Your task to perform on an android device: open app "Google Home" Image 0: 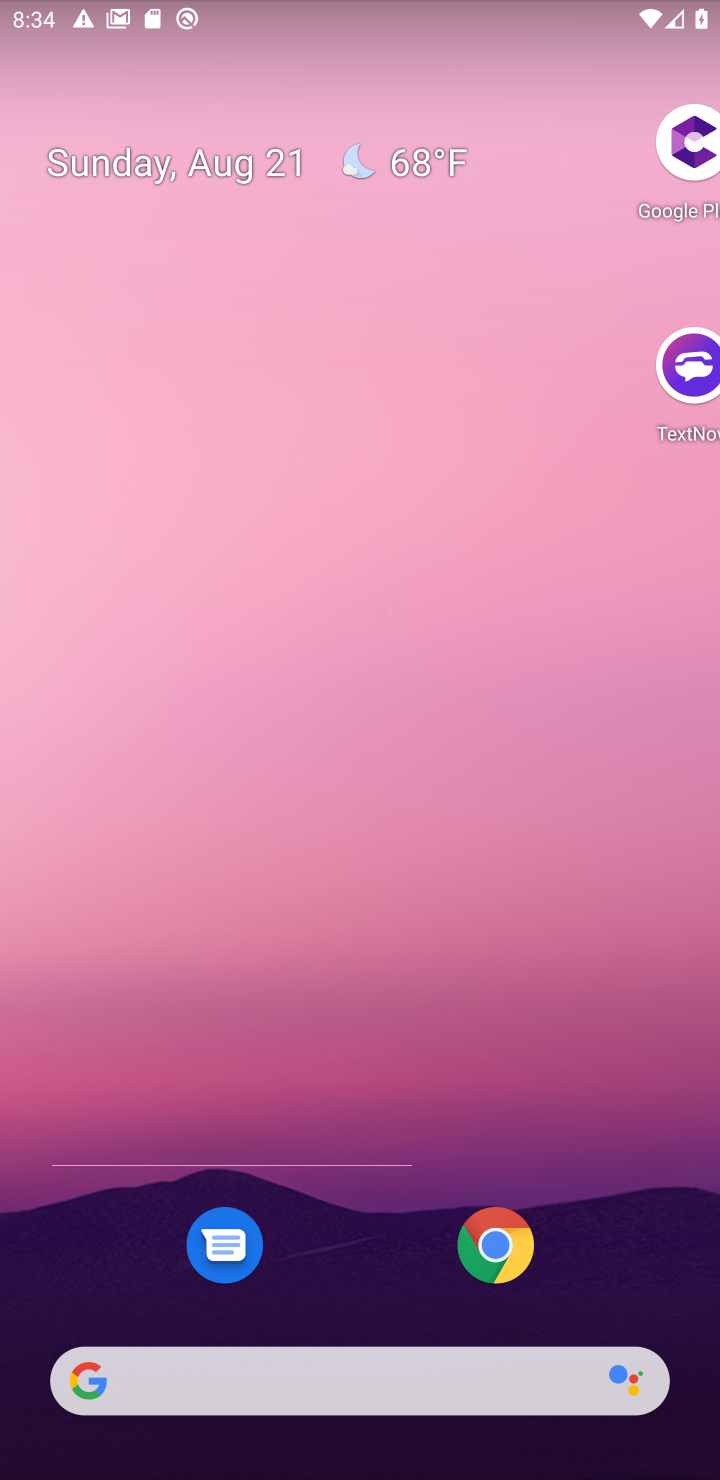
Step 0: drag from (399, 1324) to (280, 68)
Your task to perform on an android device: open app "Google Home" Image 1: 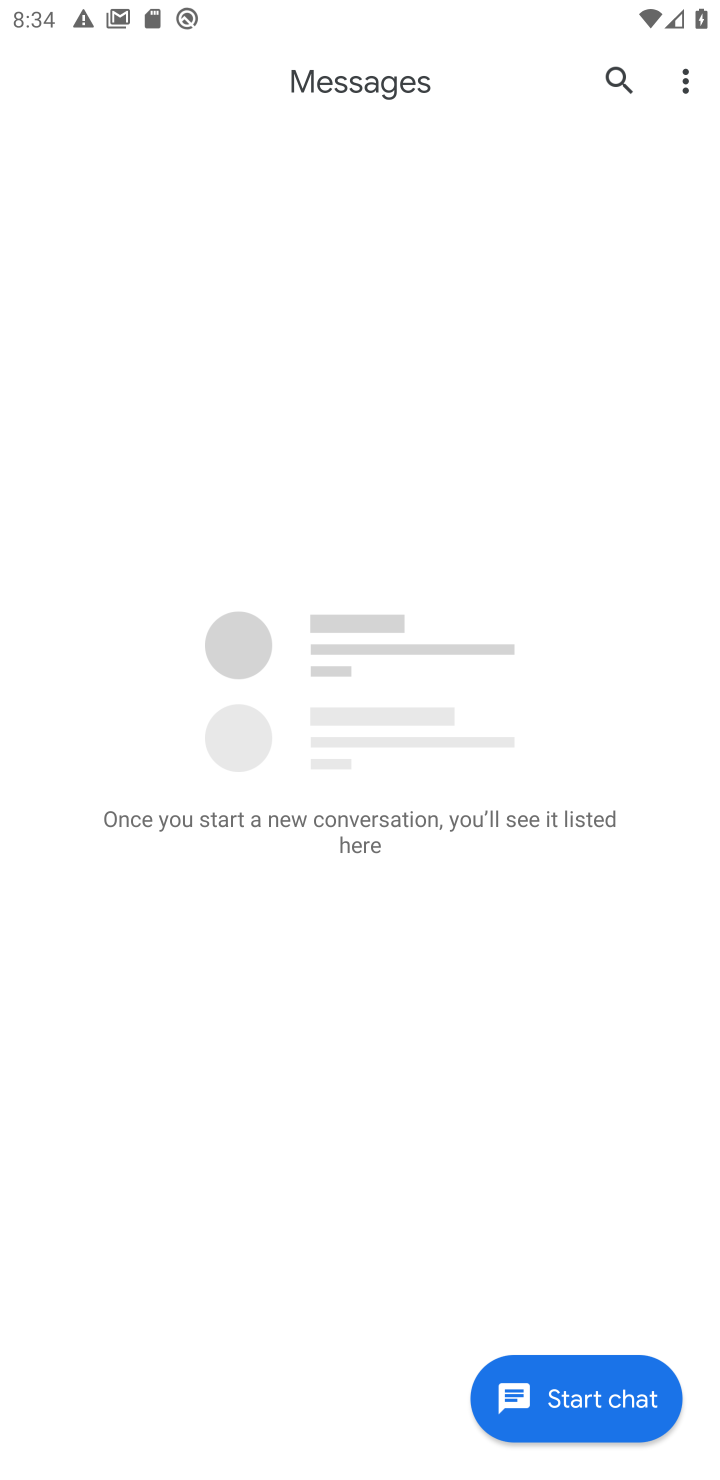
Step 1: press home button
Your task to perform on an android device: open app "Google Home" Image 2: 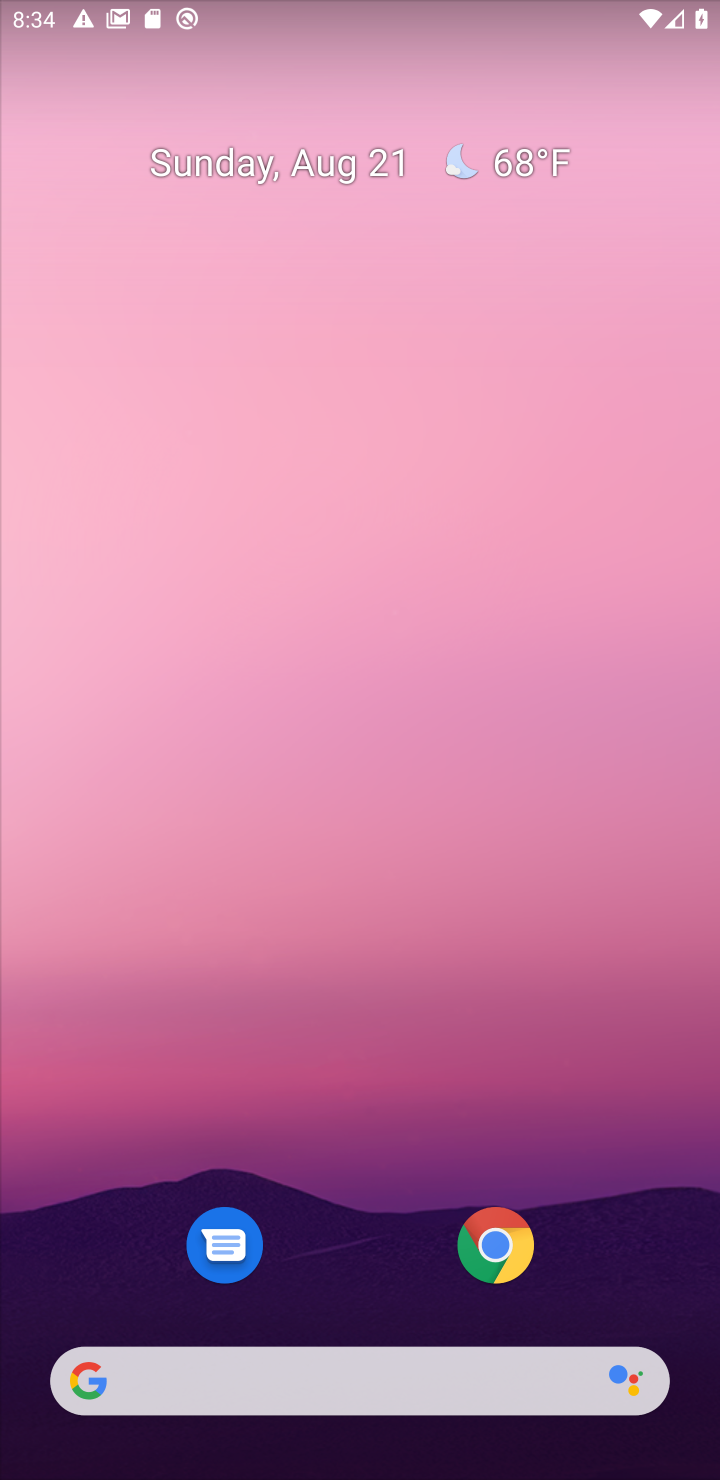
Step 2: drag from (345, 1298) to (238, 73)
Your task to perform on an android device: open app "Google Home" Image 3: 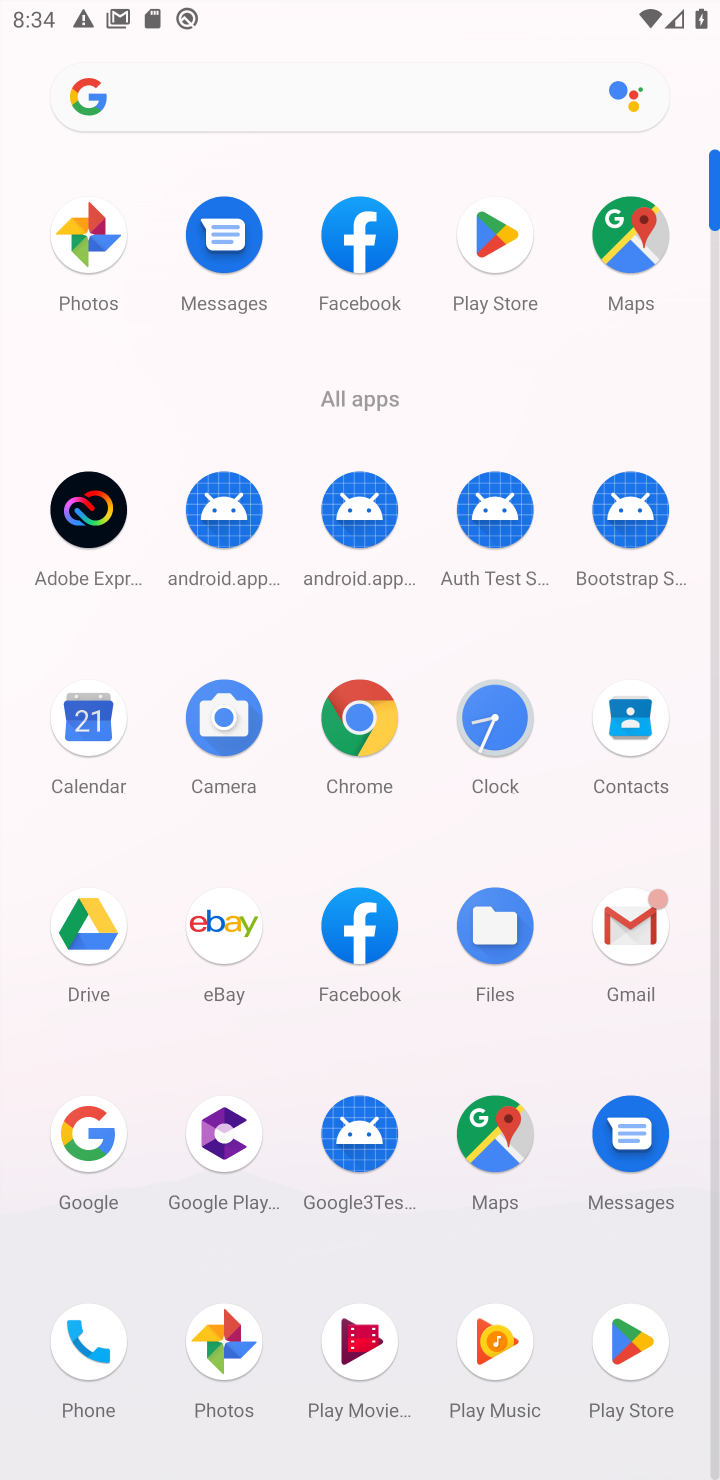
Step 3: click (600, 1374)
Your task to perform on an android device: open app "Google Home" Image 4: 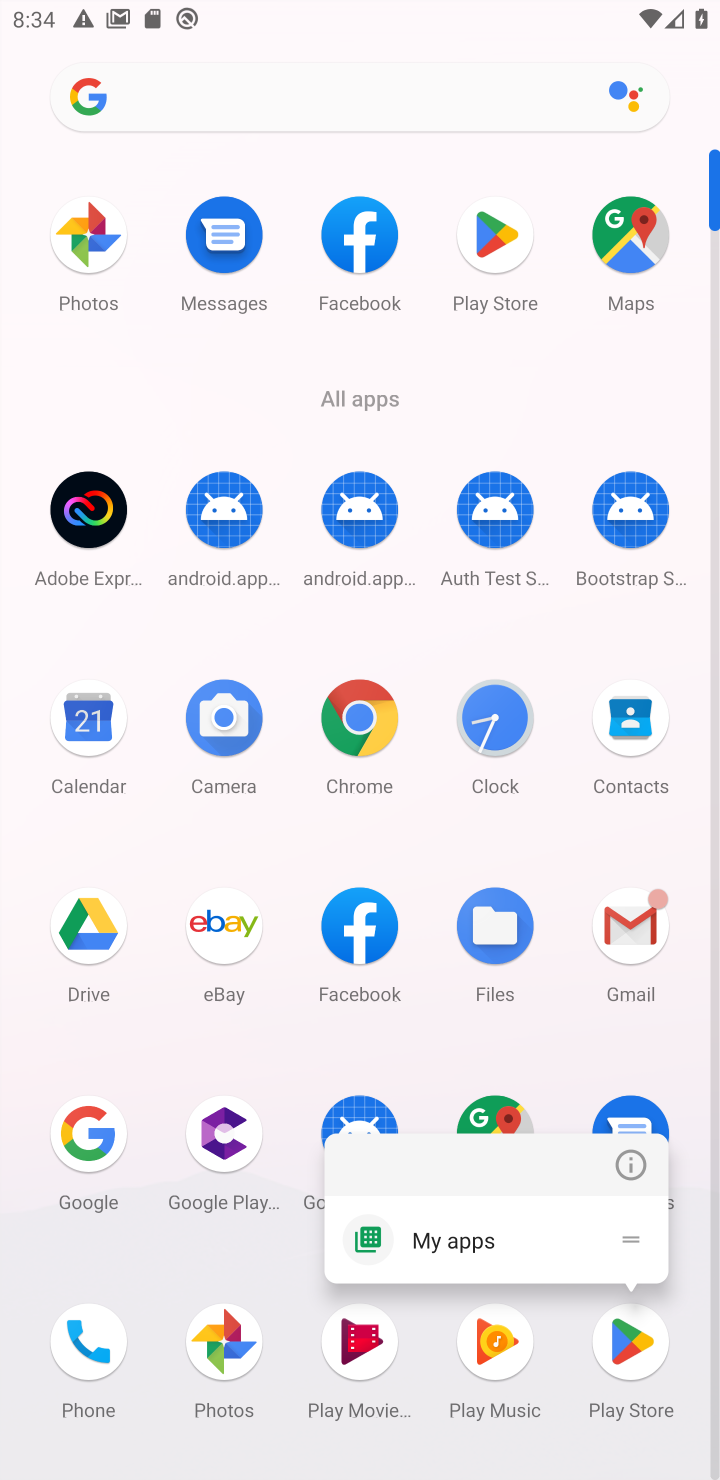
Step 4: click (609, 1369)
Your task to perform on an android device: open app "Google Home" Image 5: 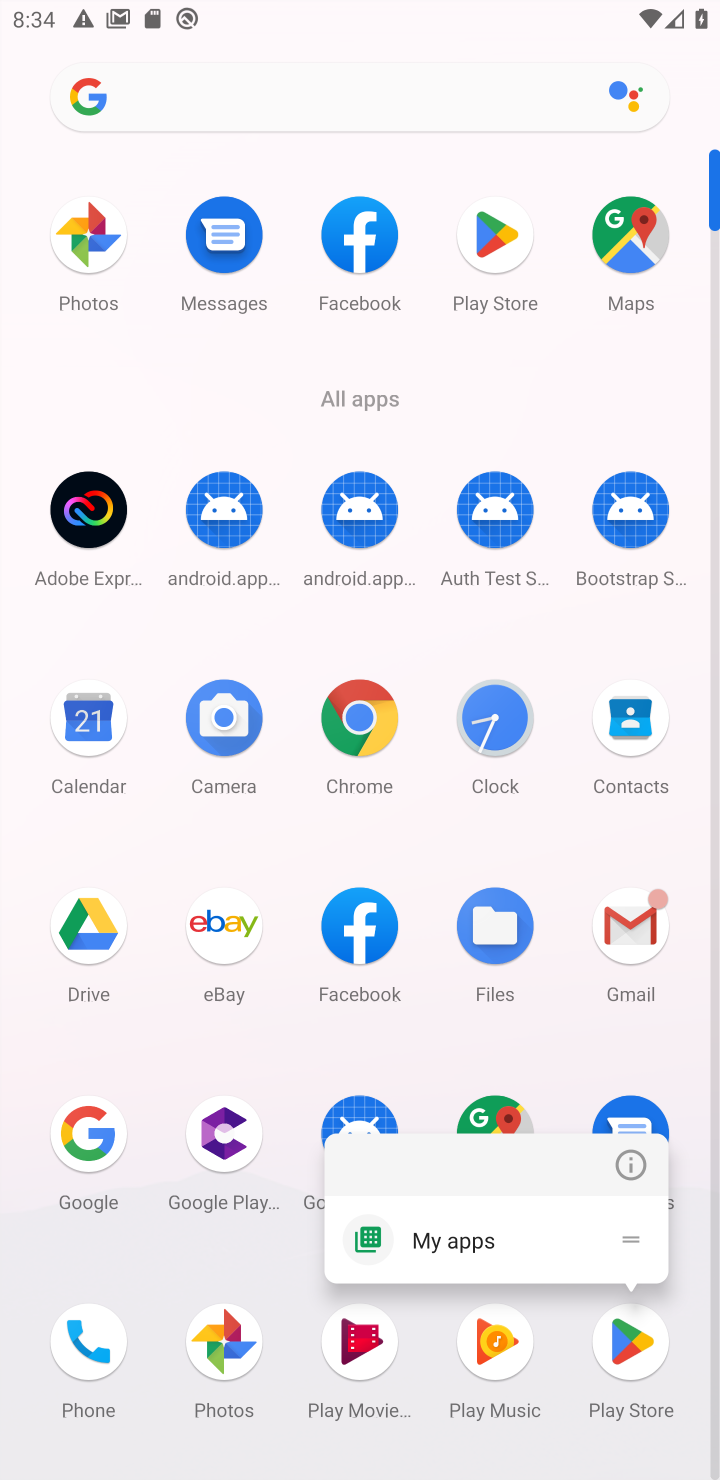
Step 5: click (645, 1356)
Your task to perform on an android device: open app "Google Home" Image 6: 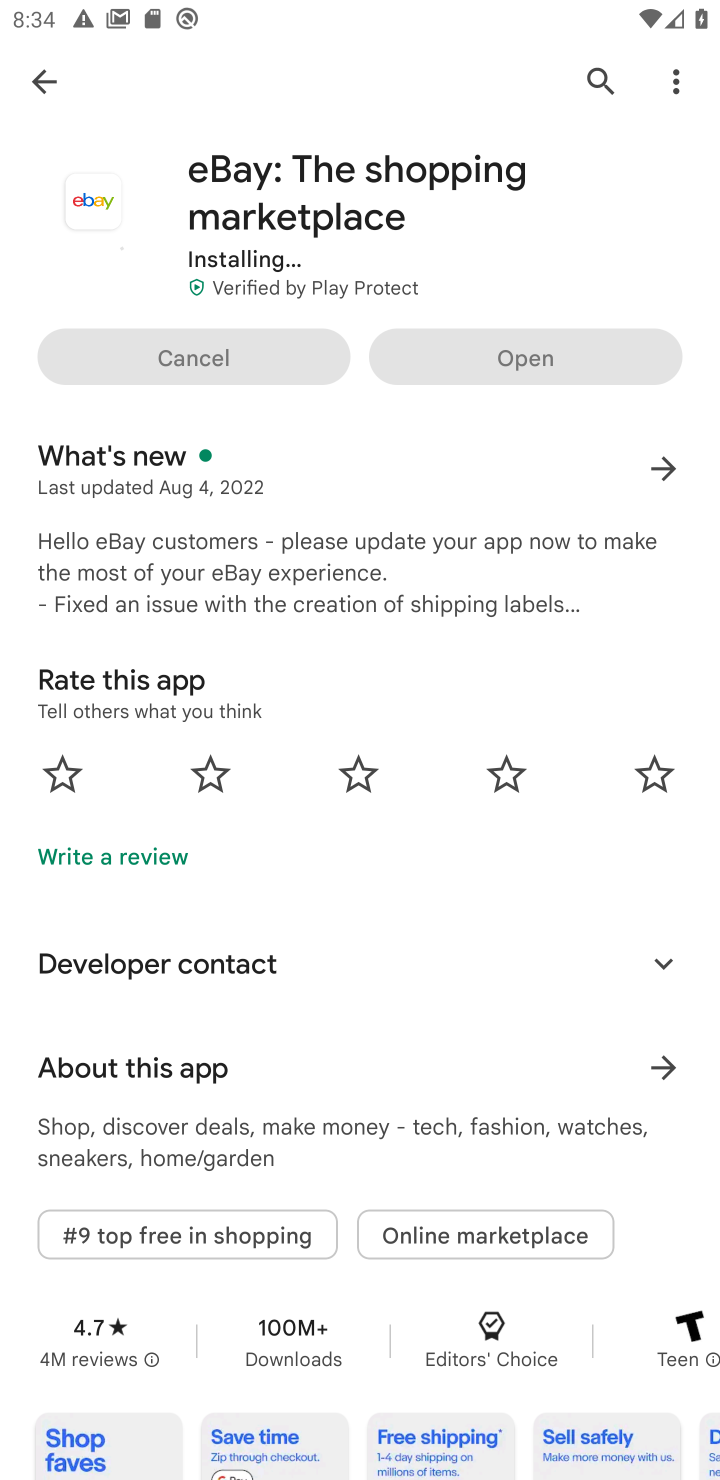
Step 6: click (32, 81)
Your task to perform on an android device: open app "Google Home" Image 7: 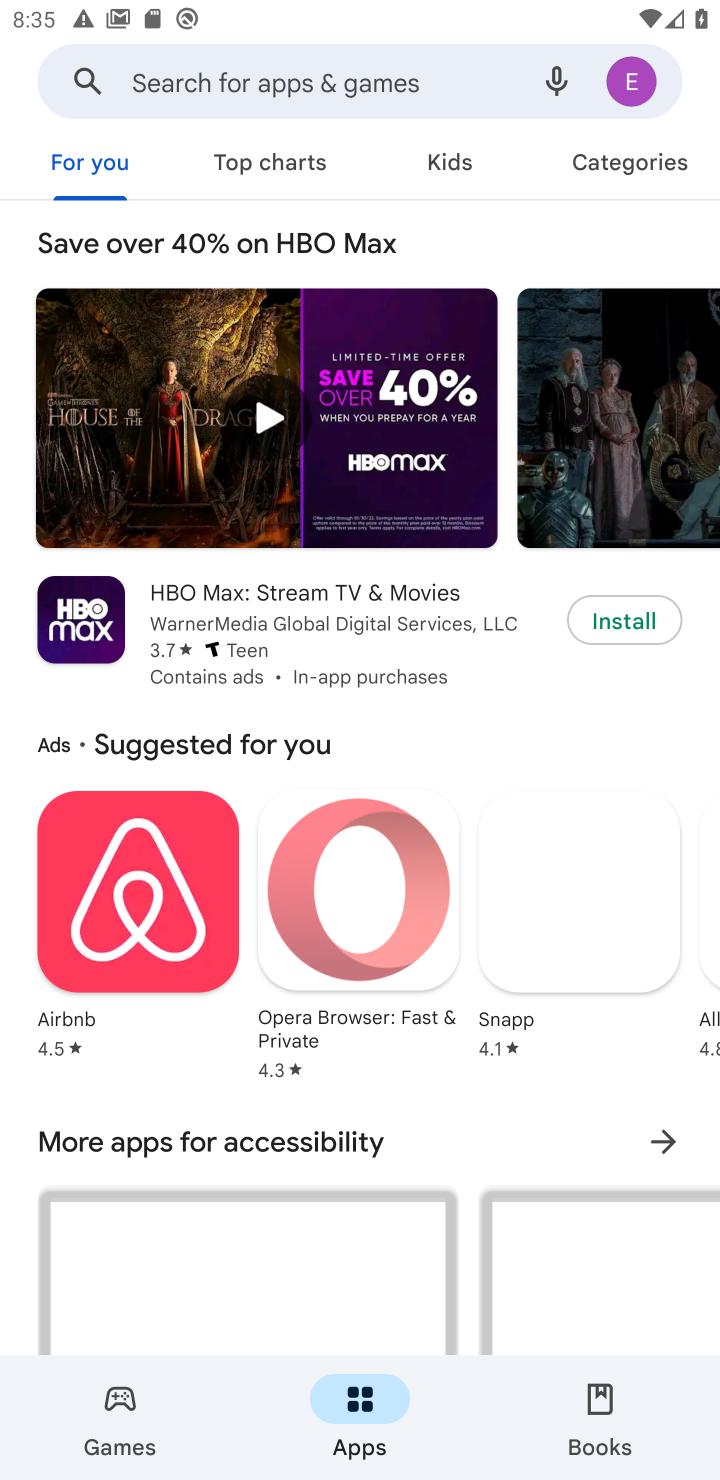
Step 7: click (232, 92)
Your task to perform on an android device: open app "Google Home" Image 8: 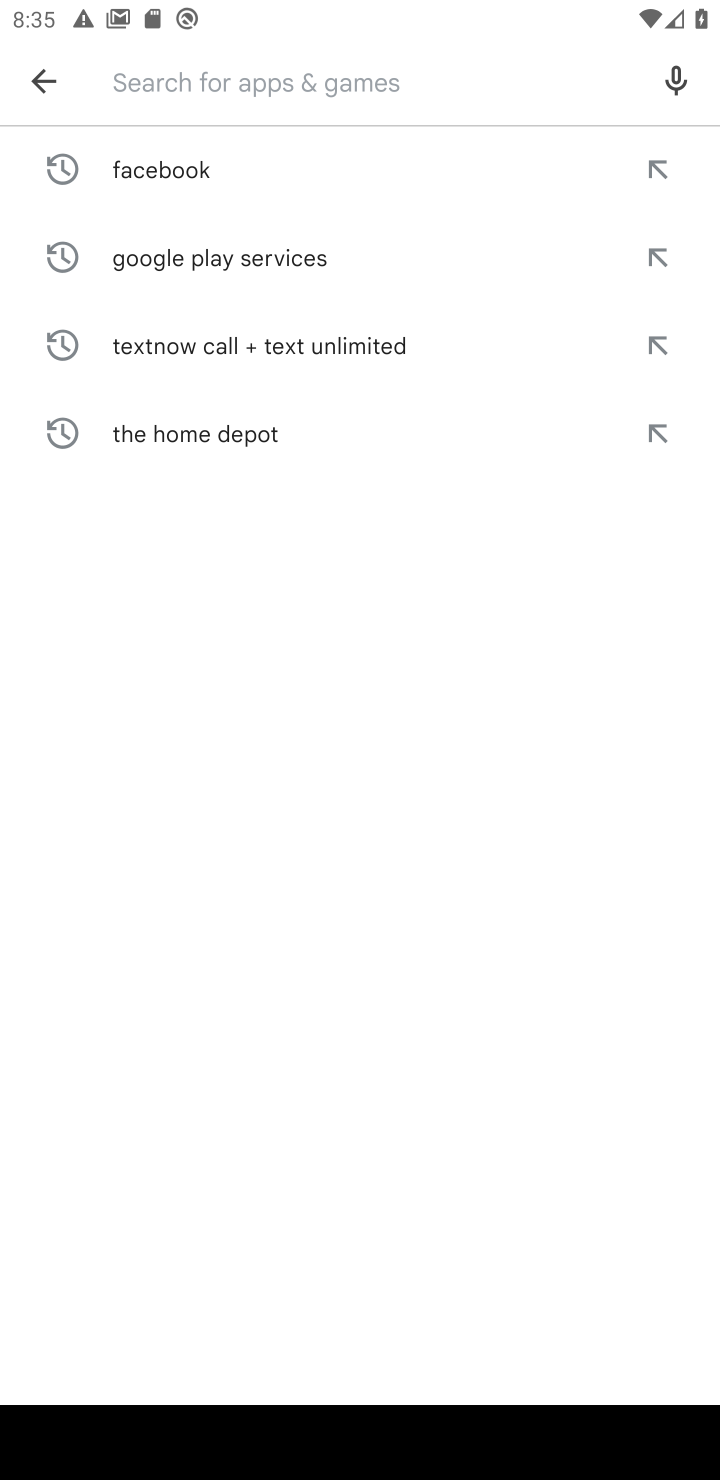
Step 8: type "Google Home"
Your task to perform on an android device: open app "Google Home" Image 9: 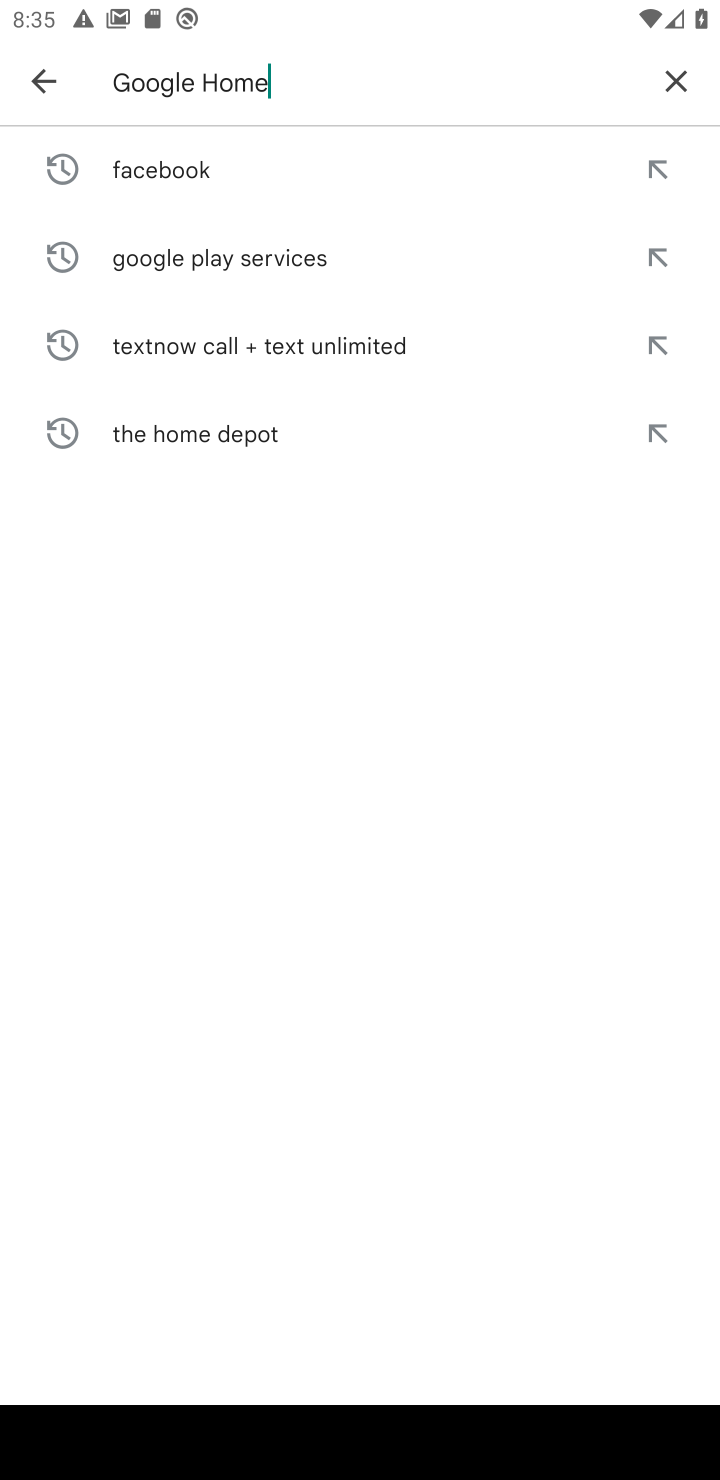
Step 9: type ""
Your task to perform on an android device: open app "Google Home" Image 10: 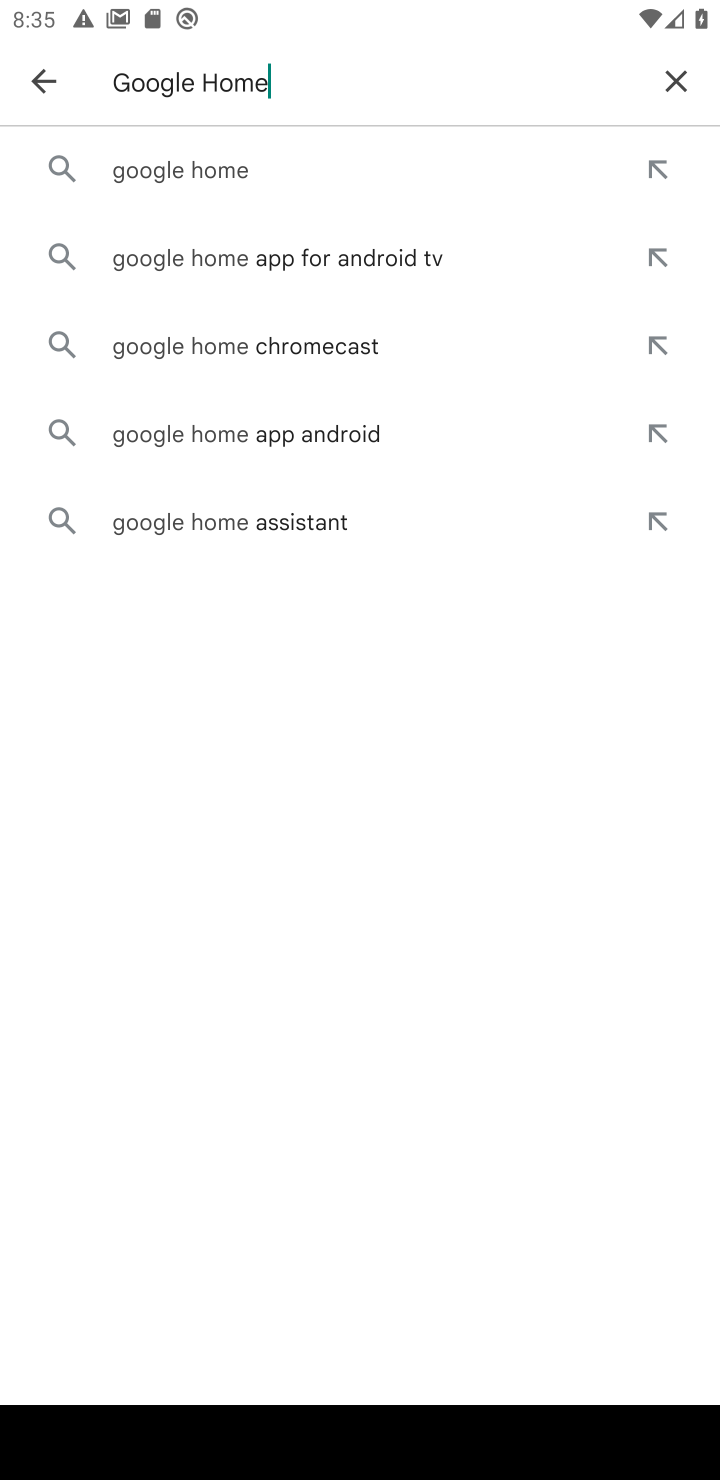
Step 10: click (214, 174)
Your task to perform on an android device: open app "Google Home" Image 11: 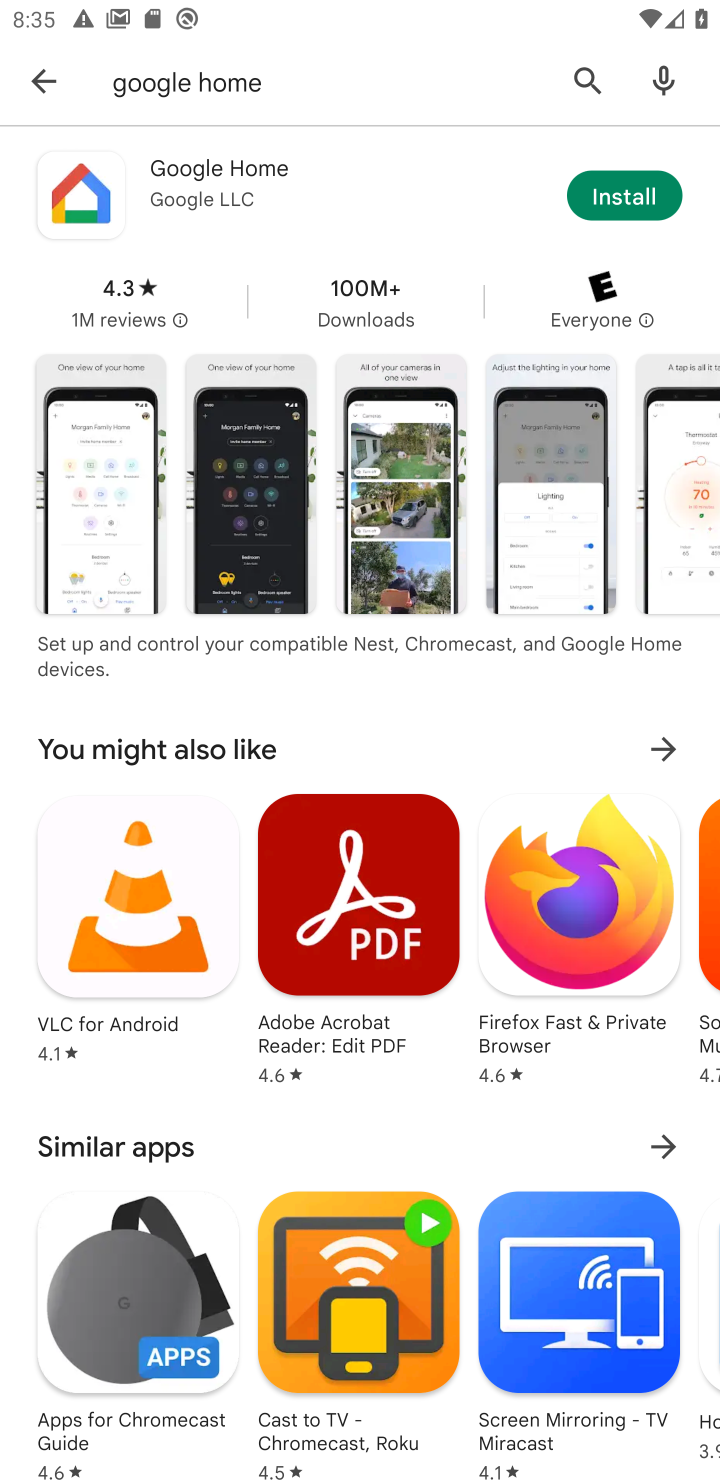
Step 11: click (214, 174)
Your task to perform on an android device: open app "Google Home" Image 12: 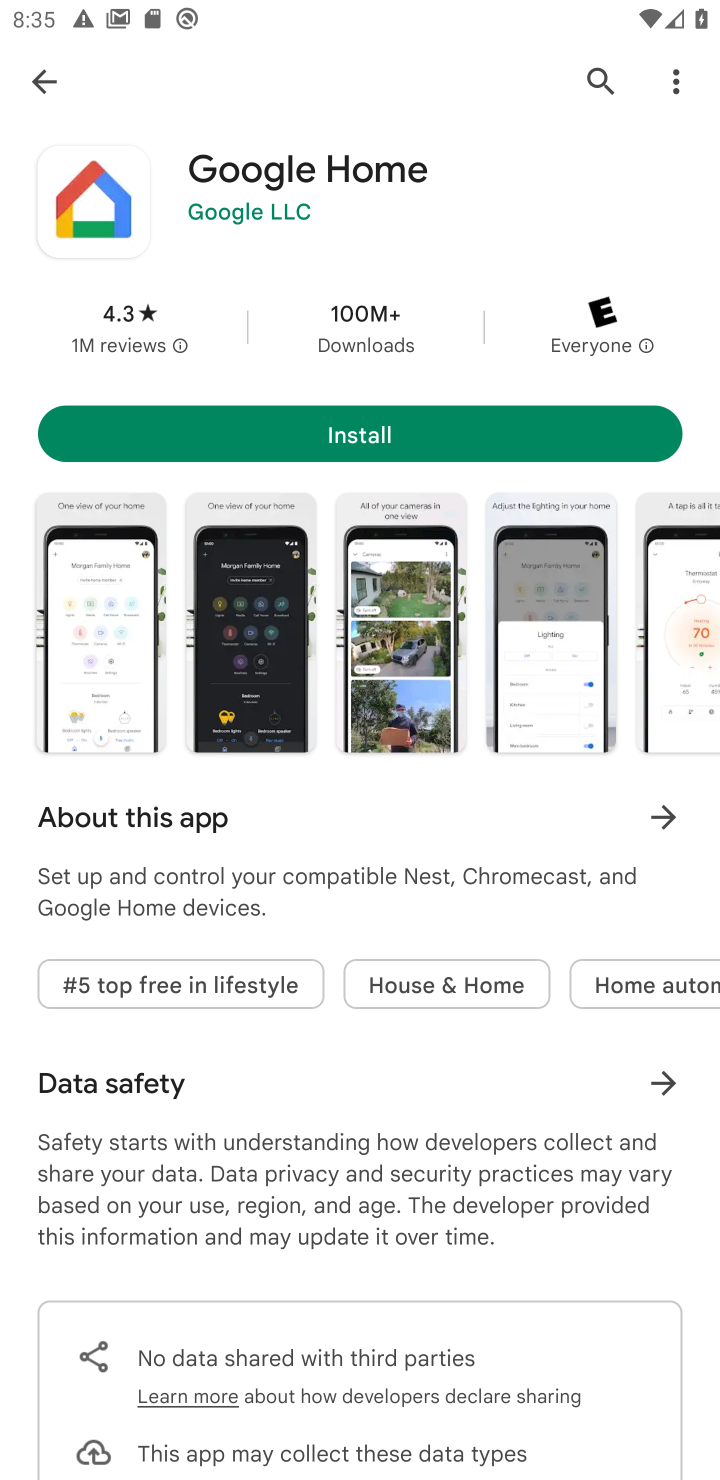
Step 12: task complete